Your task to perform on an android device: Open wifi settings Image 0: 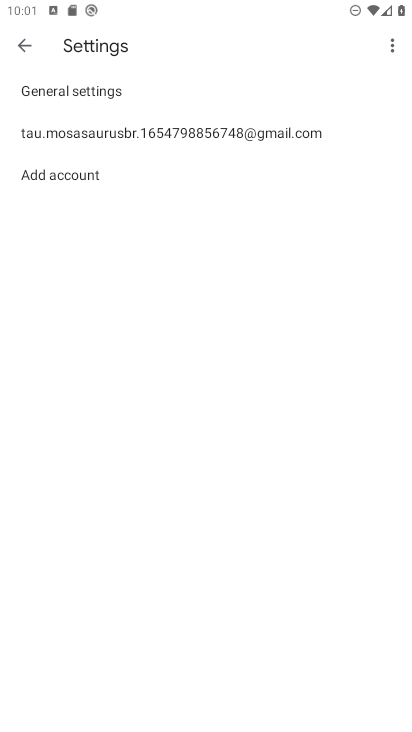
Step 0: press home button
Your task to perform on an android device: Open wifi settings Image 1: 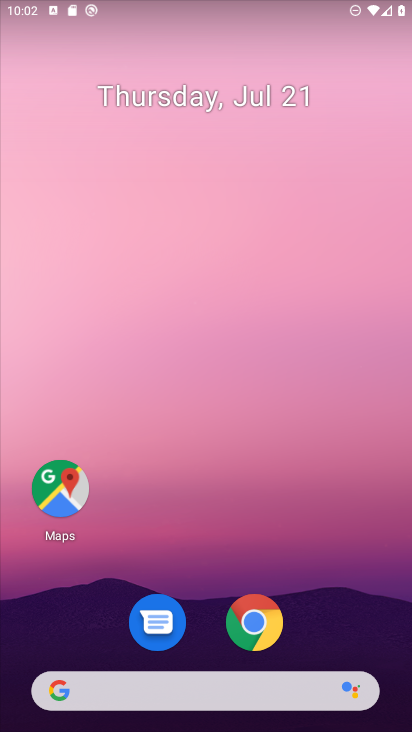
Step 1: drag from (224, 499) to (206, 6)
Your task to perform on an android device: Open wifi settings Image 2: 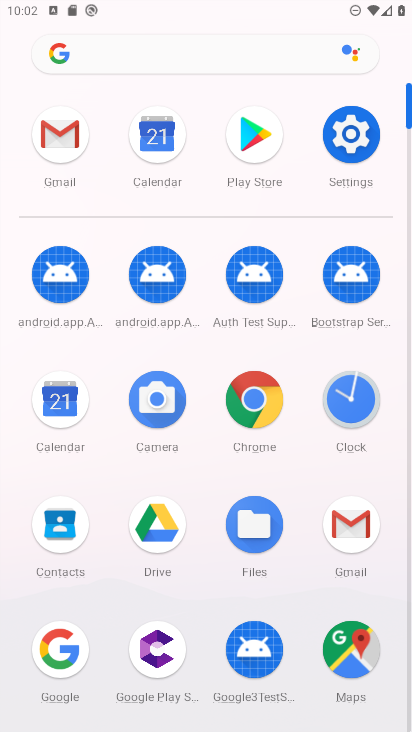
Step 2: click (337, 124)
Your task to perform on an android device: Open wifi settings Image 3: 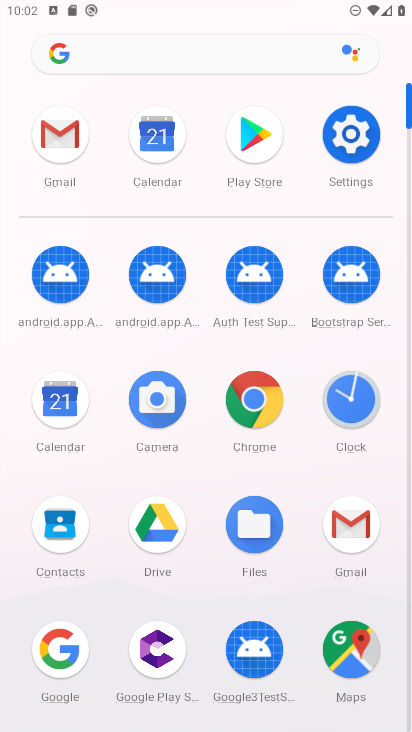
Step 3: click (337, 124)
Your task to perform on an android device: Open wifi settings Image 4: 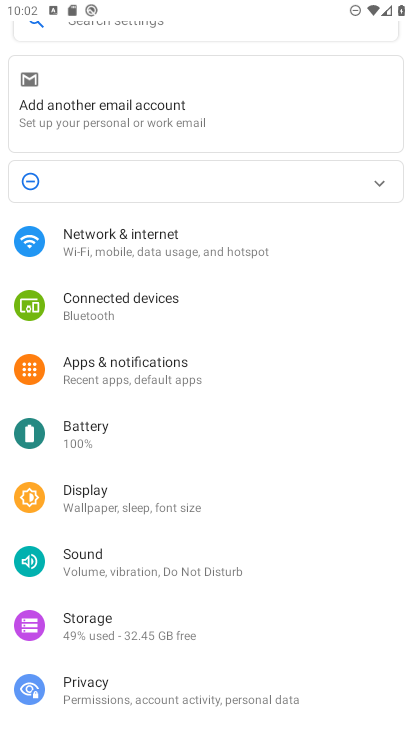
Step 4: click (174, 250)
Your task to perform on an android device: Open wifi settings Image 5: 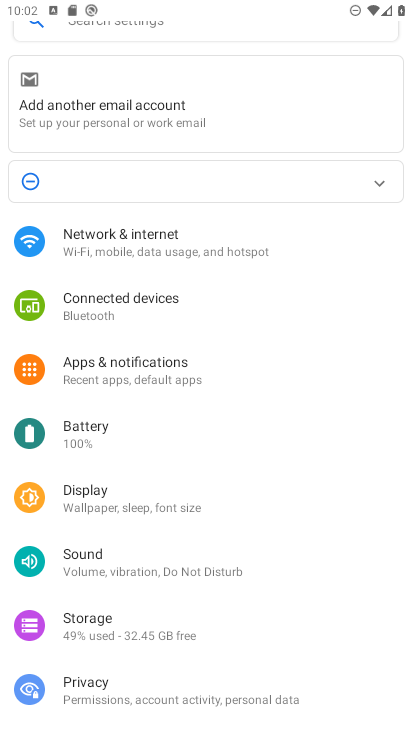
Step 5: click (174, 250)
Your task to perform on an android device: Open wifi settings Image 6: 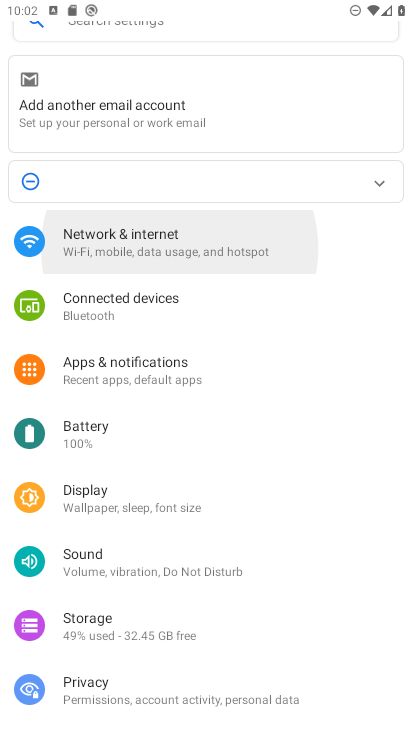
Step 6: click (174, 250)
Your task to perform on an android device: Open wifi settings Image 7: 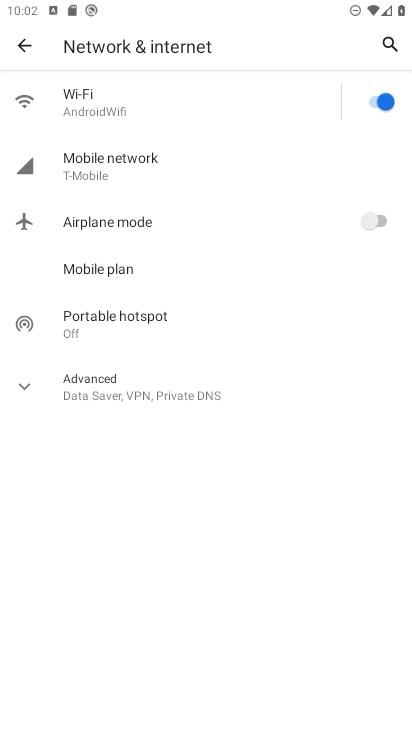
Step 7: click (170, 106)
Your task to perform on an android device: Open wifi settings Image 8: 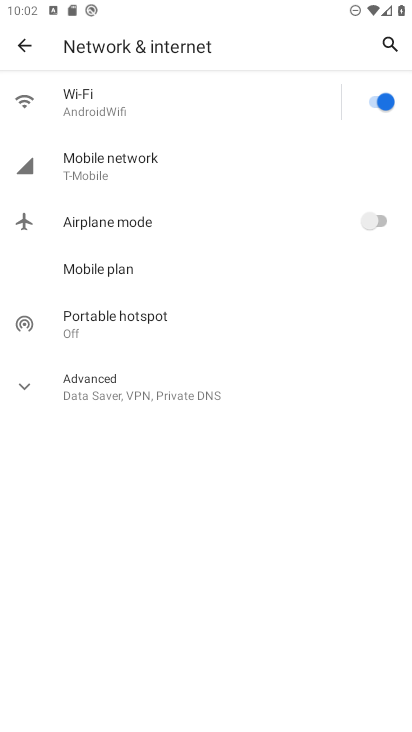
Step 8: click (170, 106)
Your task to perform on an android device: Open wifi settings Image 9: 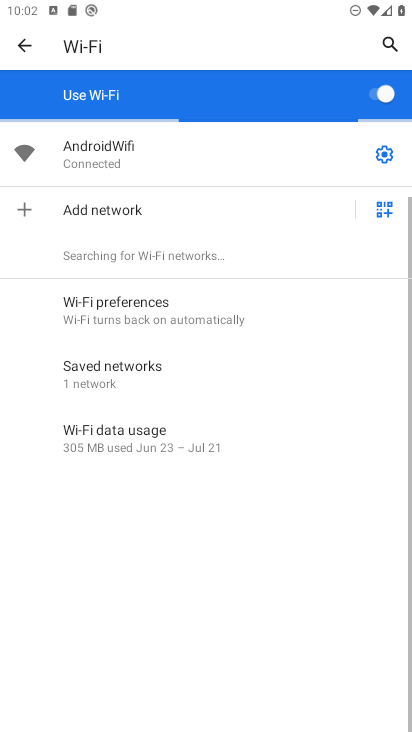
Step 9: click (385, 152)
Your task to perform on an android device: Open wifi settings Image 10: 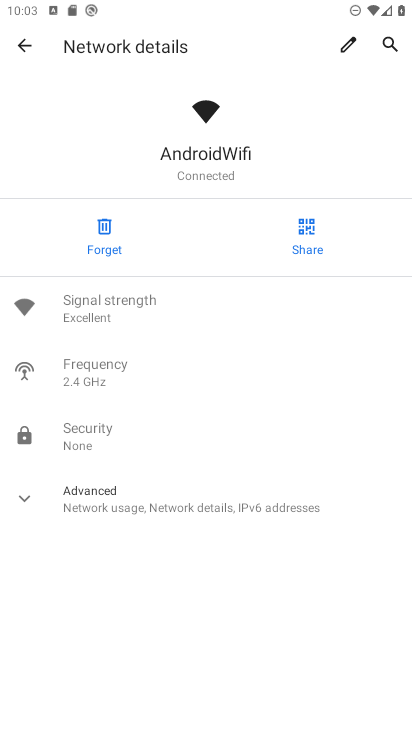
Step 10: task complete